Your task to perform on an android device: Add dell xps to the cart on ebay, then select checkout. Image 0: 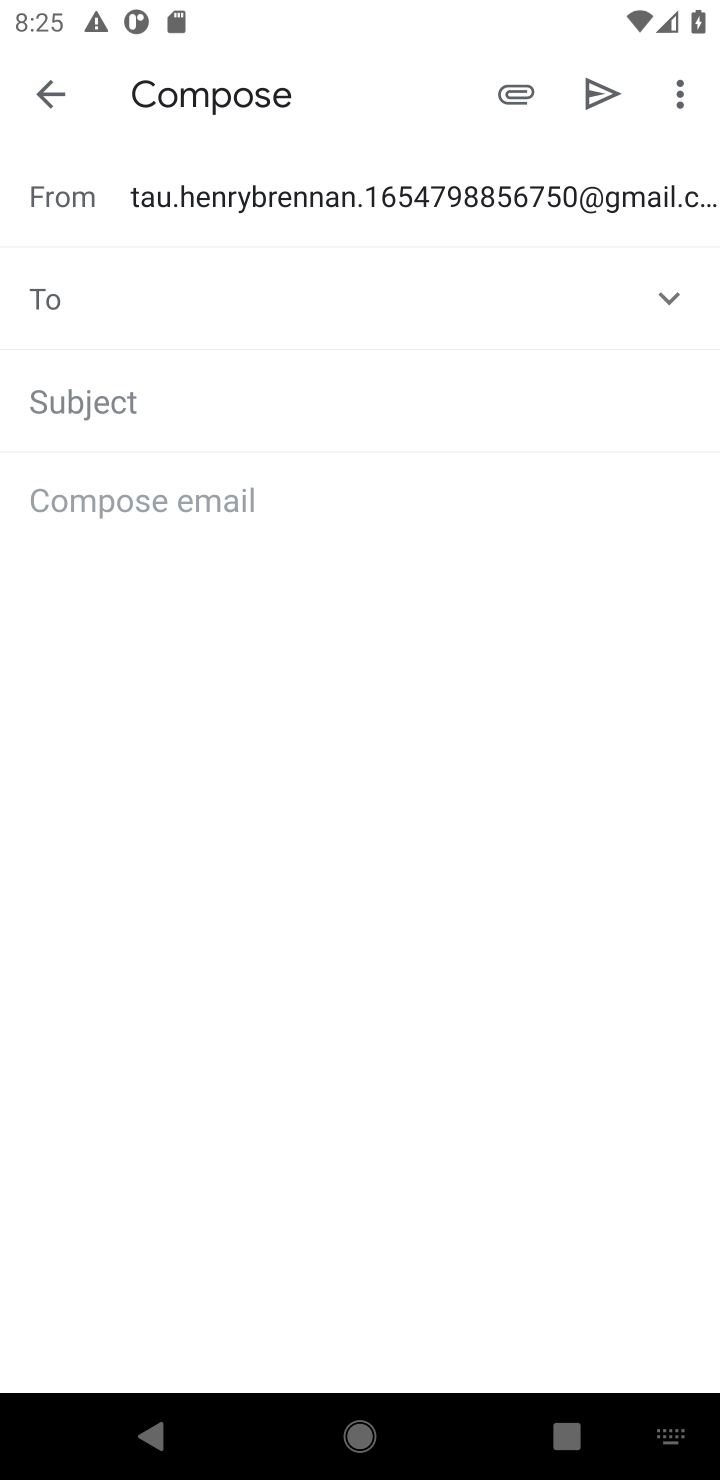
Step 0: press home button
Your task to perform on an android device: Add dell xps to the cart on ebay, then select checkout. Image 1: 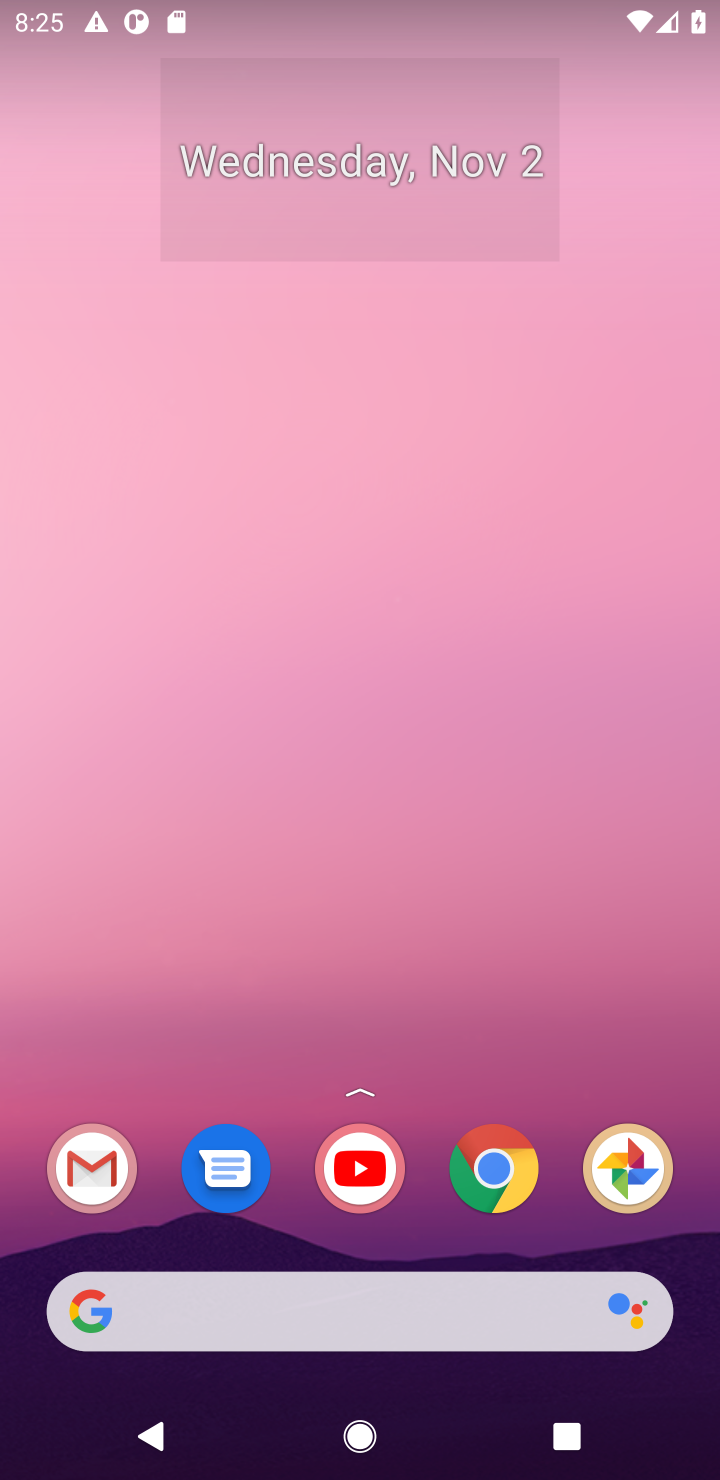
Step 1: click (497, 1170)
Your task to perform on an android device: Add dell xps to the cart on ebay, then select checkout. Image 2: 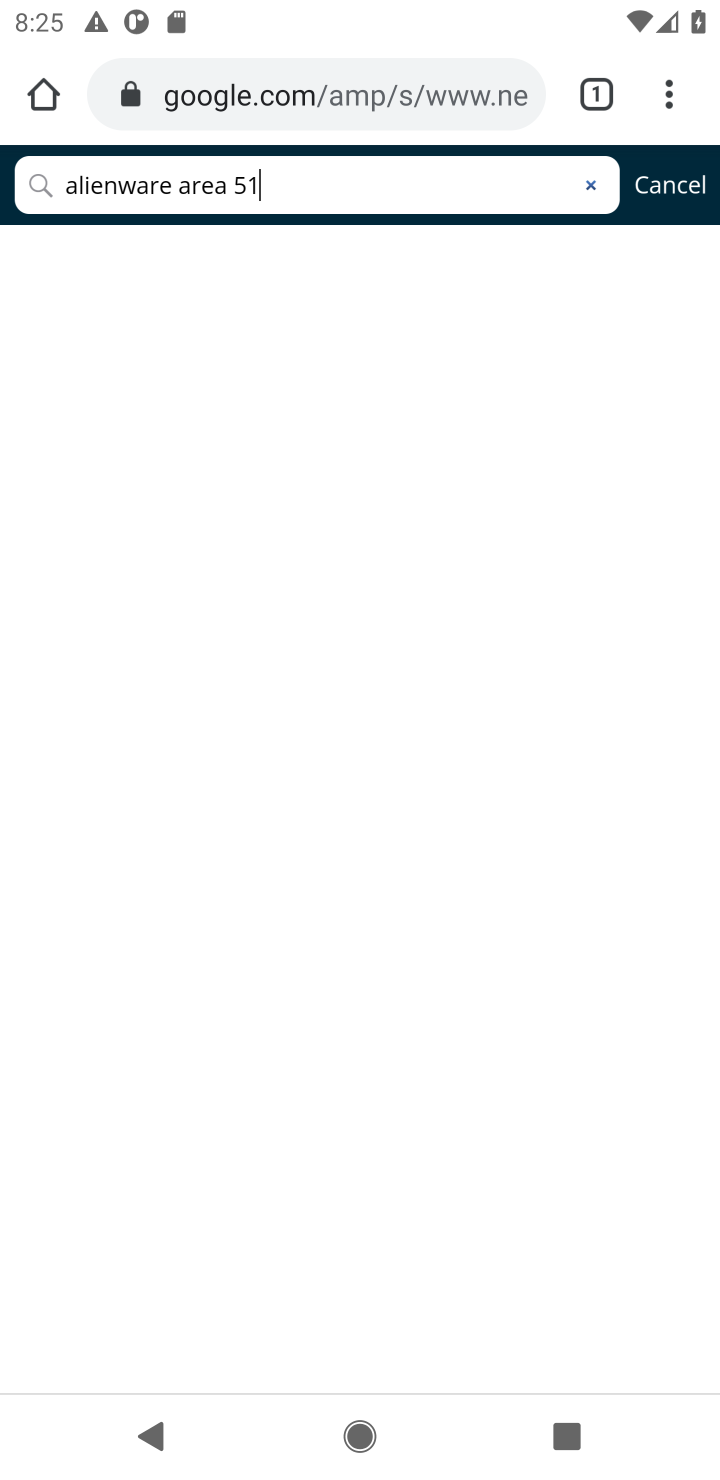
Step 2: click (402, 101)
Your task to perform on an android device: Add dell xps to the cart on ebay, then select checkout. Image 3: 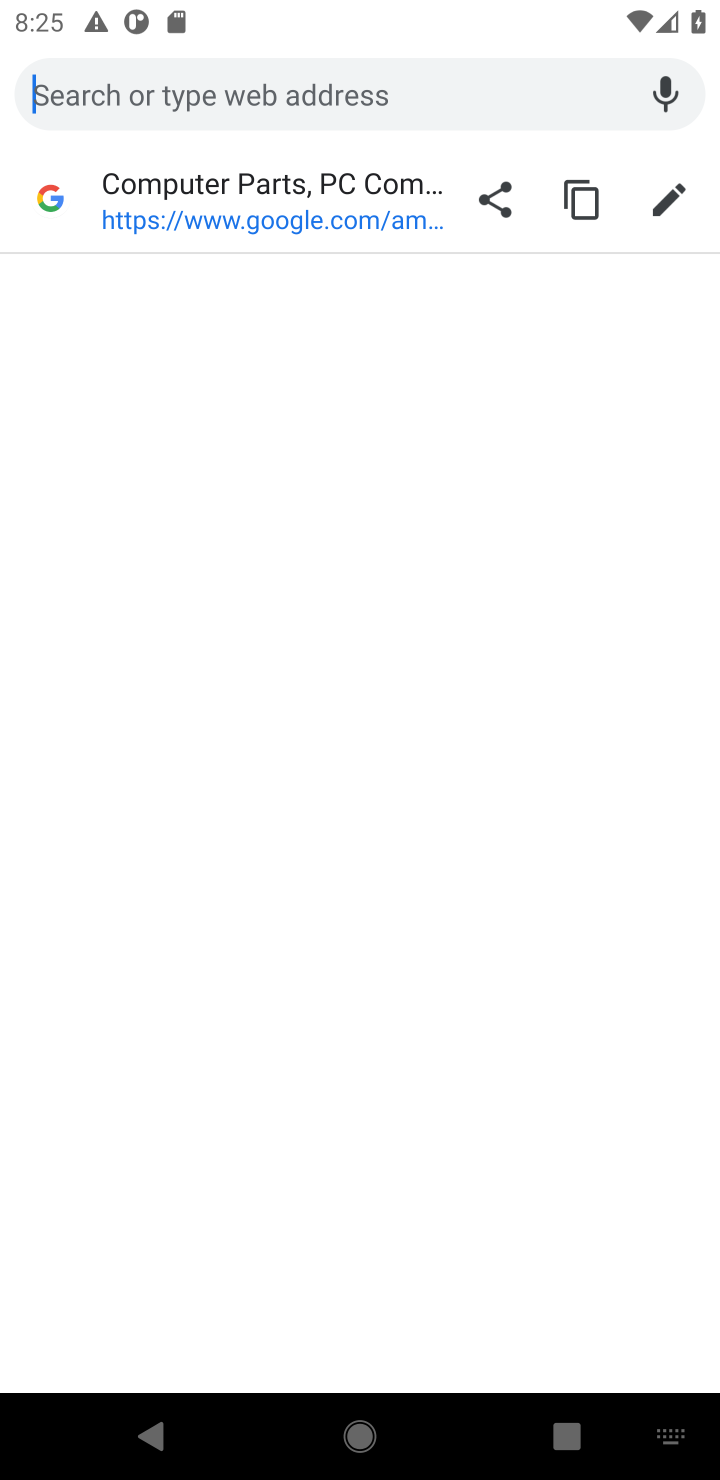
Step 3: type "ebay"
Your task to perform on an android device: Add dell xps to the cart on ebay, then select checkout. Image 4: 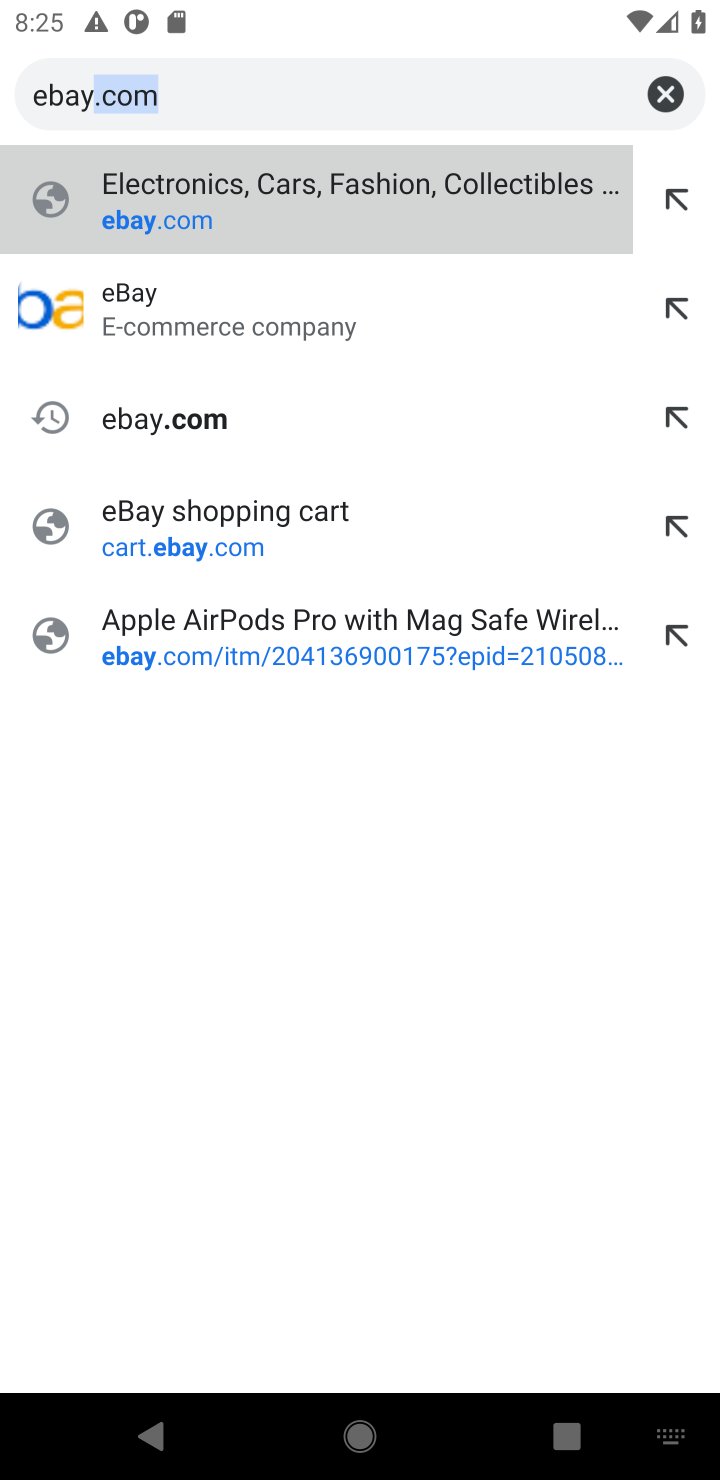
Step 4: click (176, 312)
Your task to perform on an android device: Add dell xps to the cart on ebay, then select checkout. Image 5: 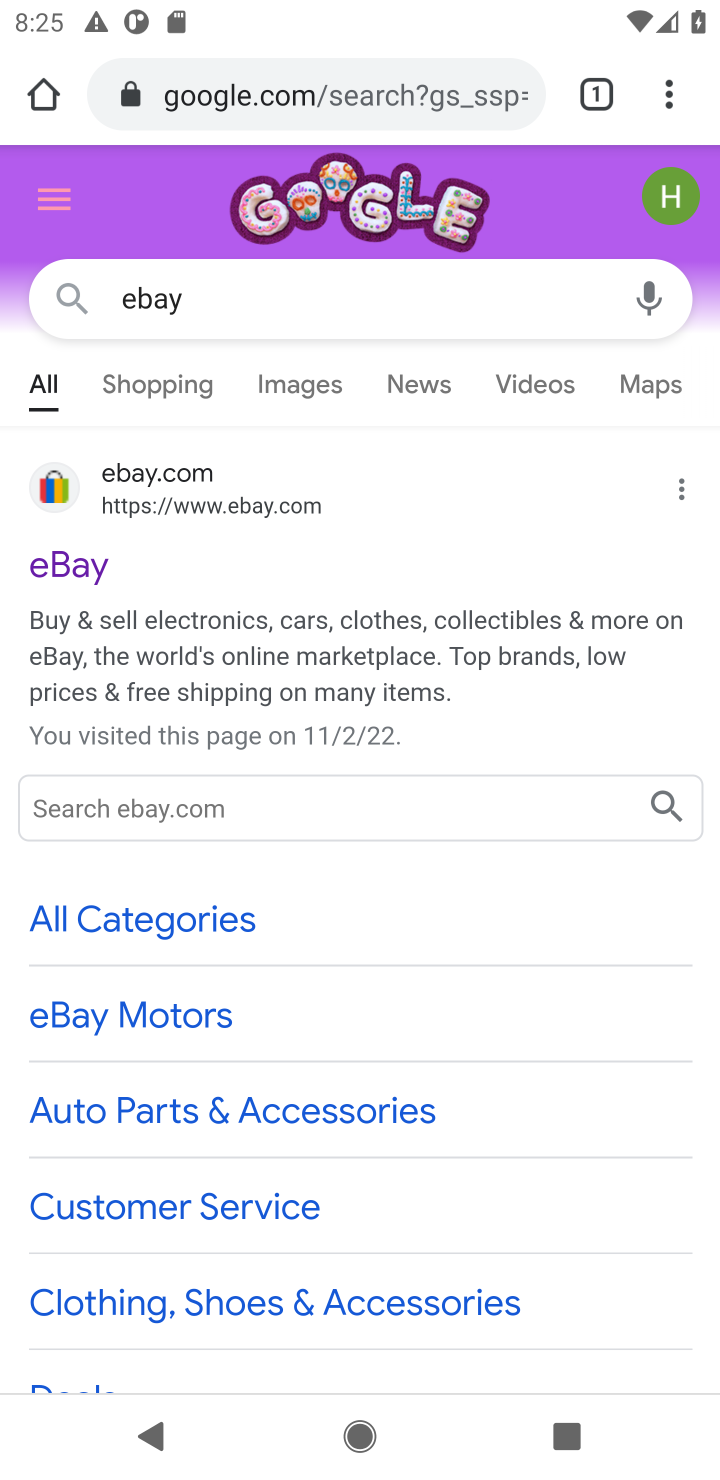
Step 5: click (225, 555)
Your task to perform on an android device: Add dell xps to the cart on ebay, then select checkout. Image 6: 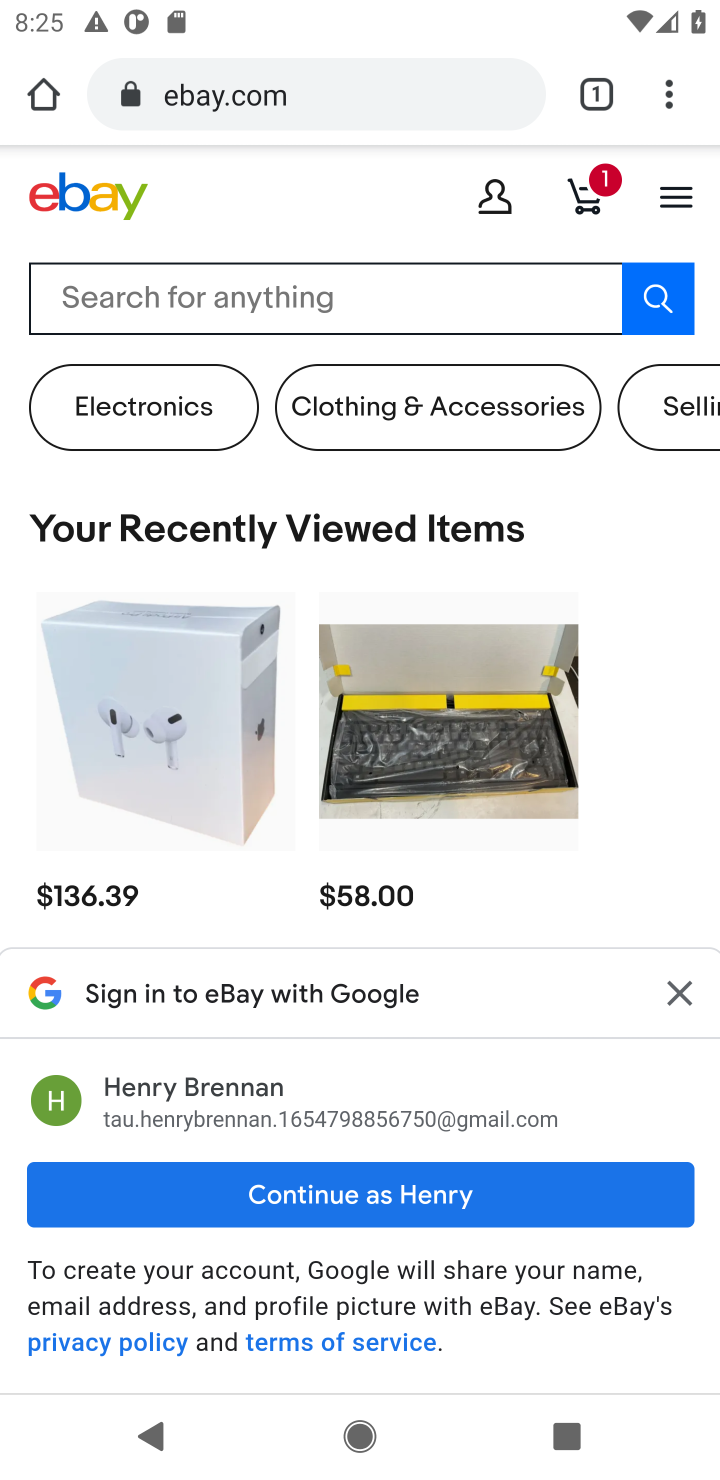
Step 6: click (369, 304)
Your task to perform on an android device: Add dell xps to the cart on ebay, then select checkout. Image 7: 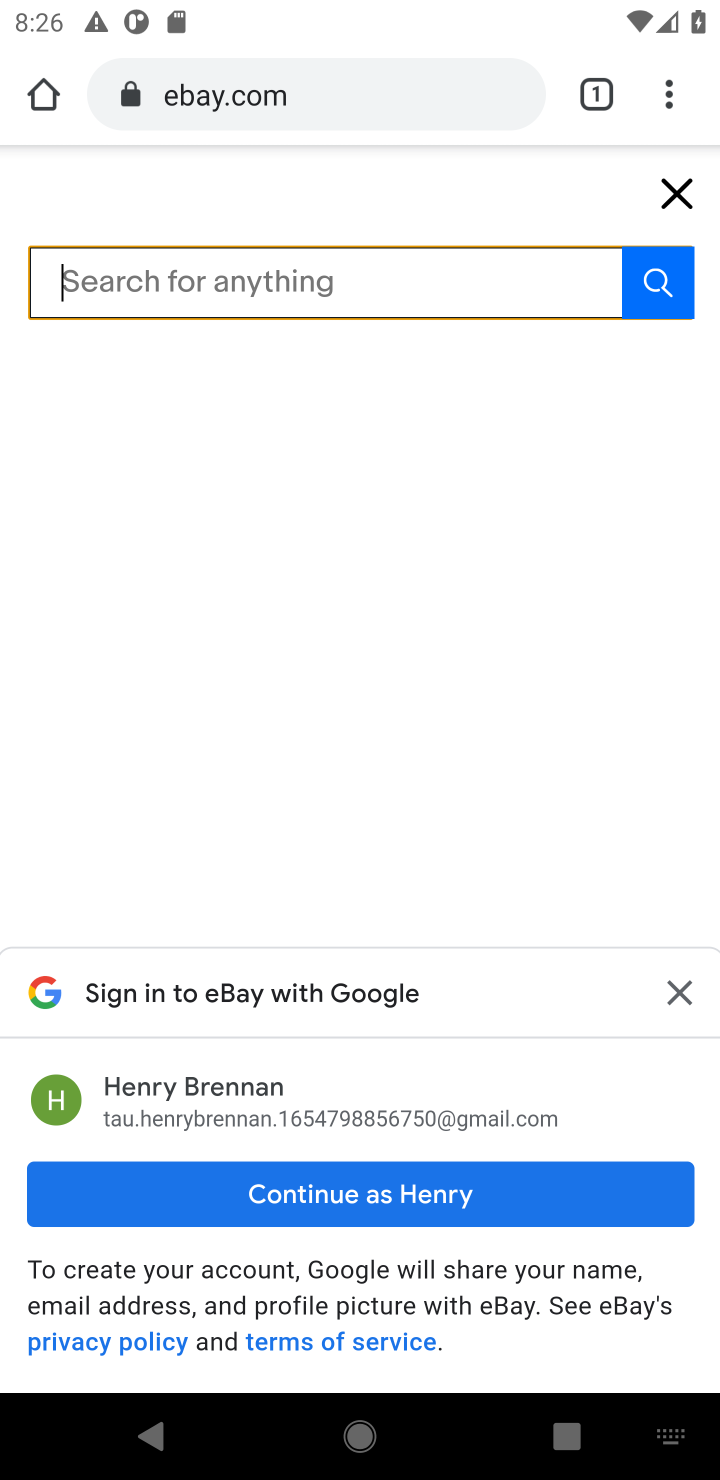
Step 7: type "dell xps"
Your task to perform on an android device: Add dell xps to the cart on ebay, then select checkout. Image 8: 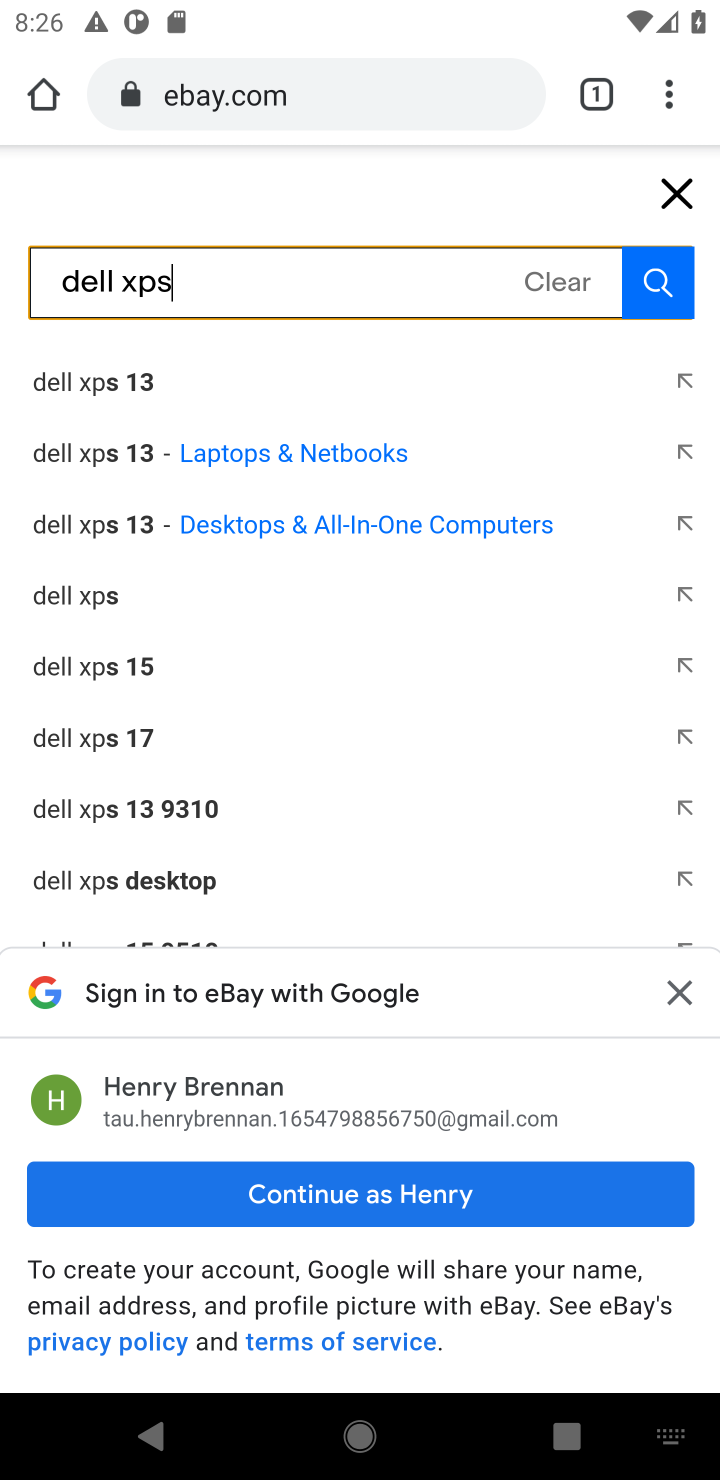
Step 8: click (661, 273)
Your task to perform on an android device: Add dell xps to the cart on ebay, then select checkout. Image 9: 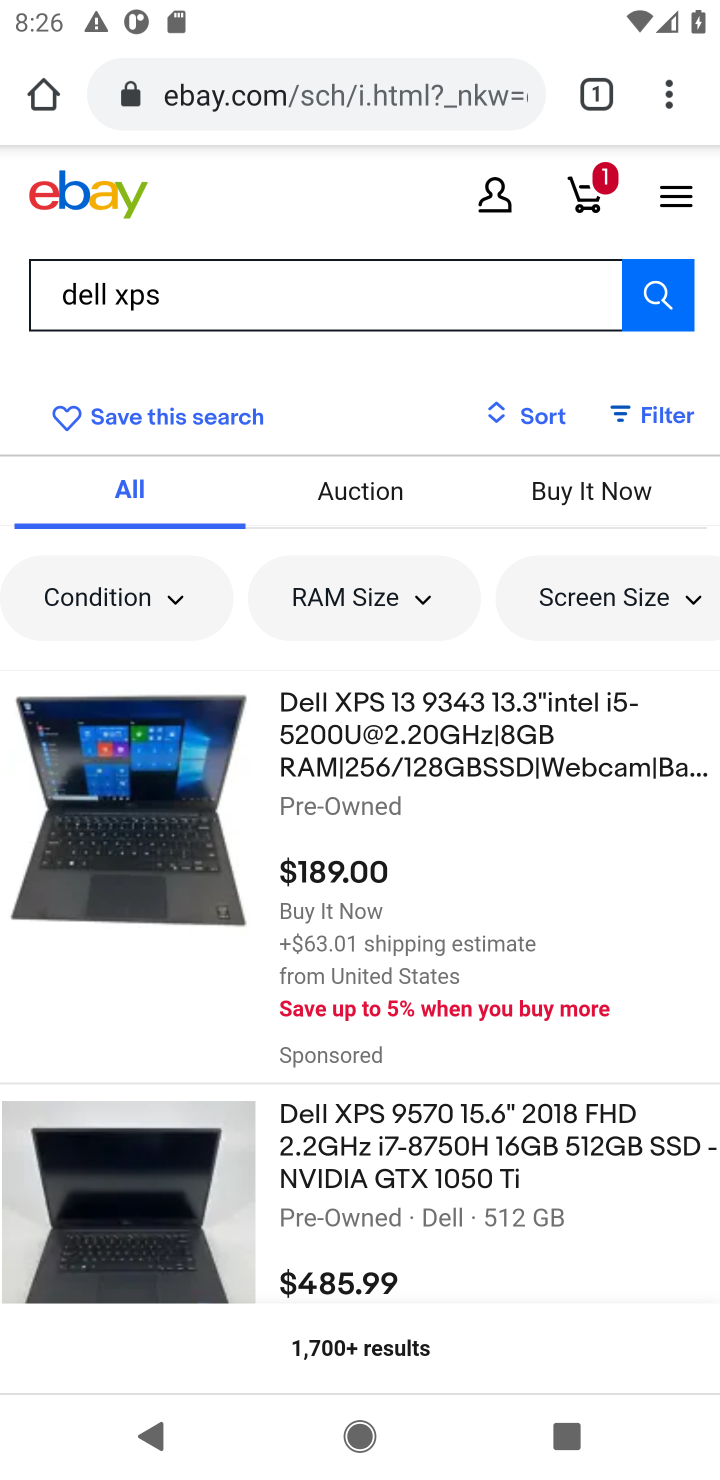
Step 9: click (460, 743)
Your task to perform on an android device: Add dell xps to the cart on ebay, then select checkout. Image 10: 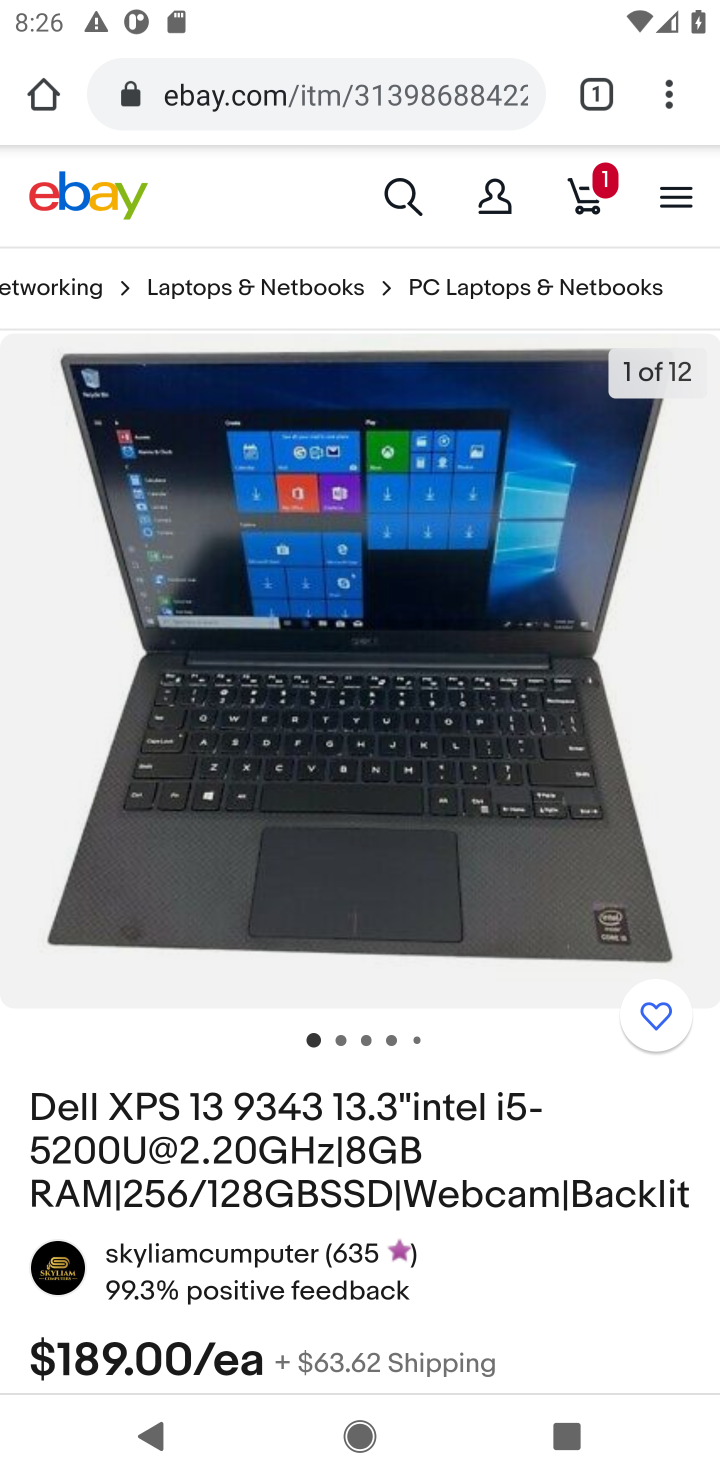
Step 10: drag from (486, 936) to (466, 616)
Your task to perform on an android device: Add dell xps to the cart on ebay, then select checkout. Image 11: 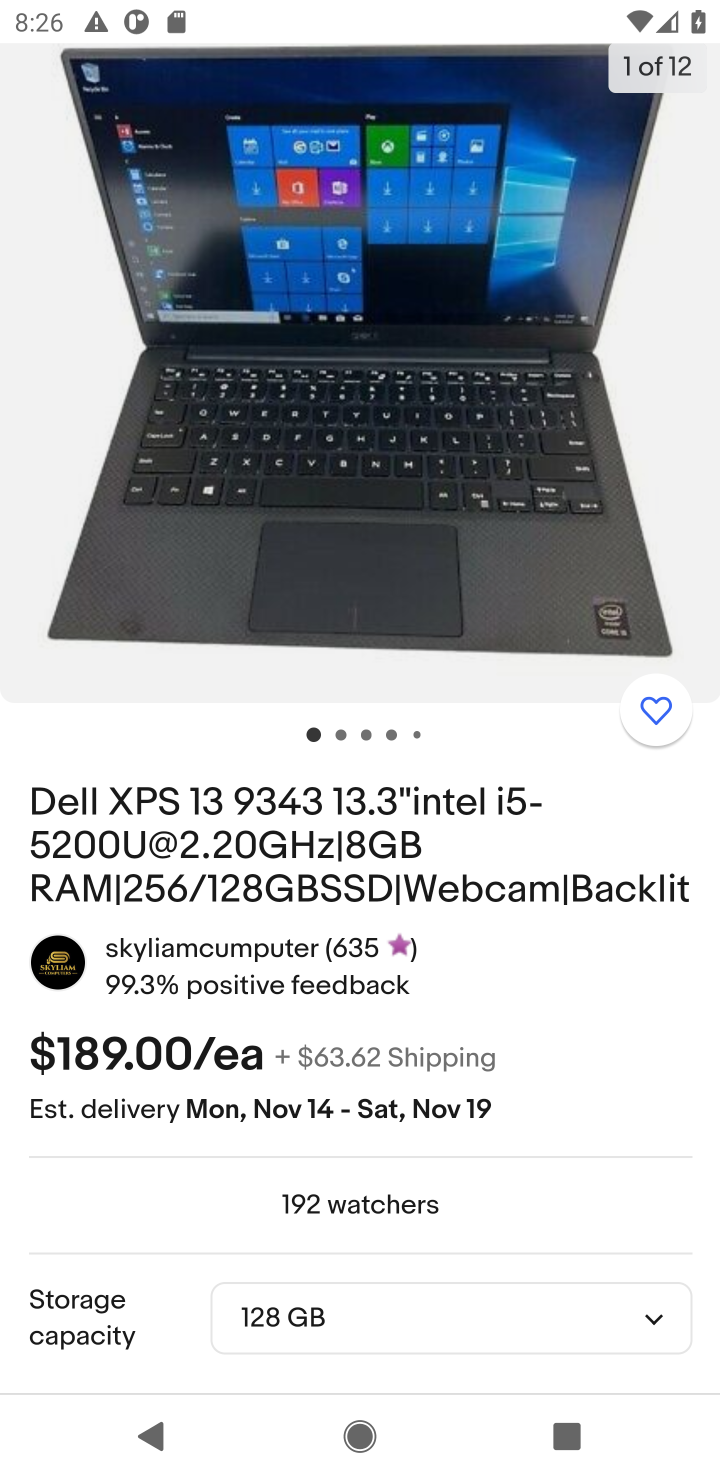
Step 11: drag from (542, 972) to (547, 612)
Your task to perform on an android device: Add dell xps to the cart on ebay, then select checkout. Image 12: 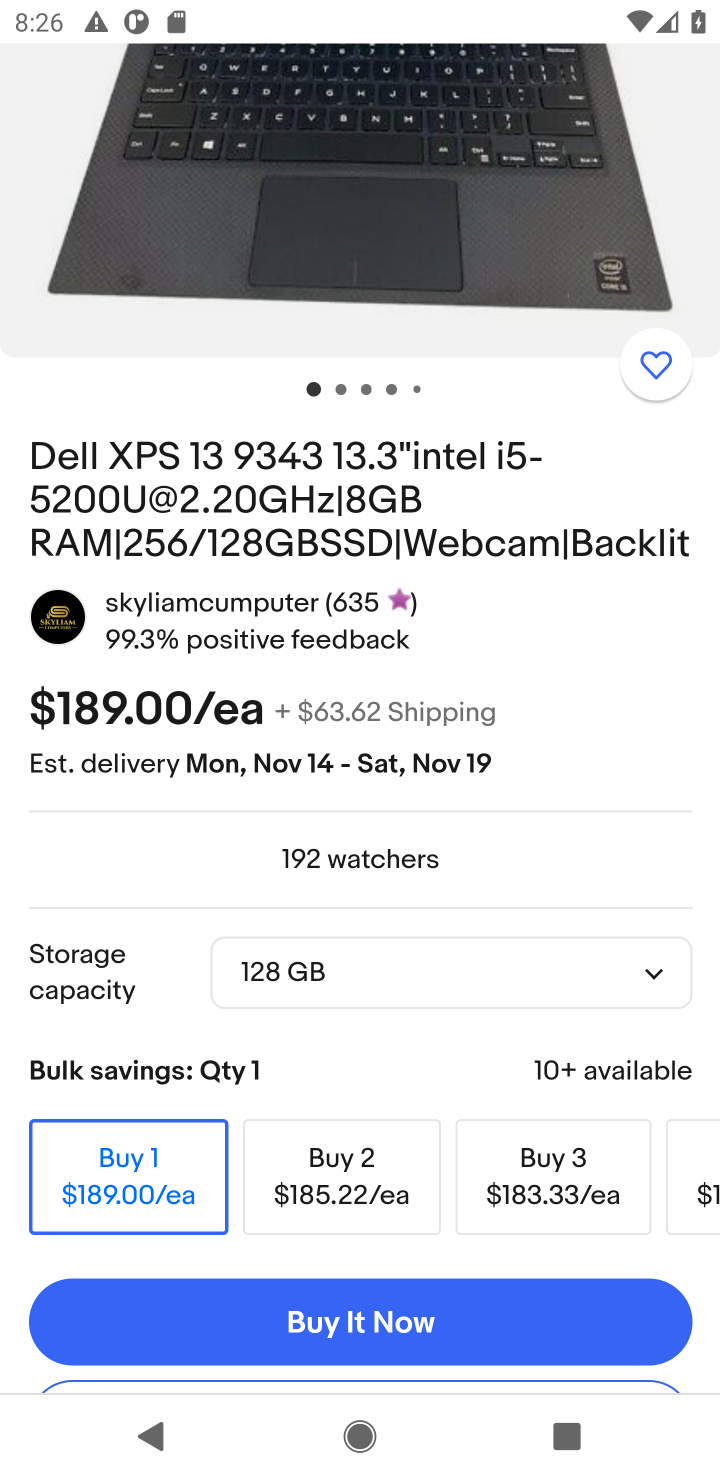
Step 12: drag from (594, 699) to (609, 335)
Your task to perform on an android device: Add dell xps to the cart on ebay, then select checkout. Image 13: 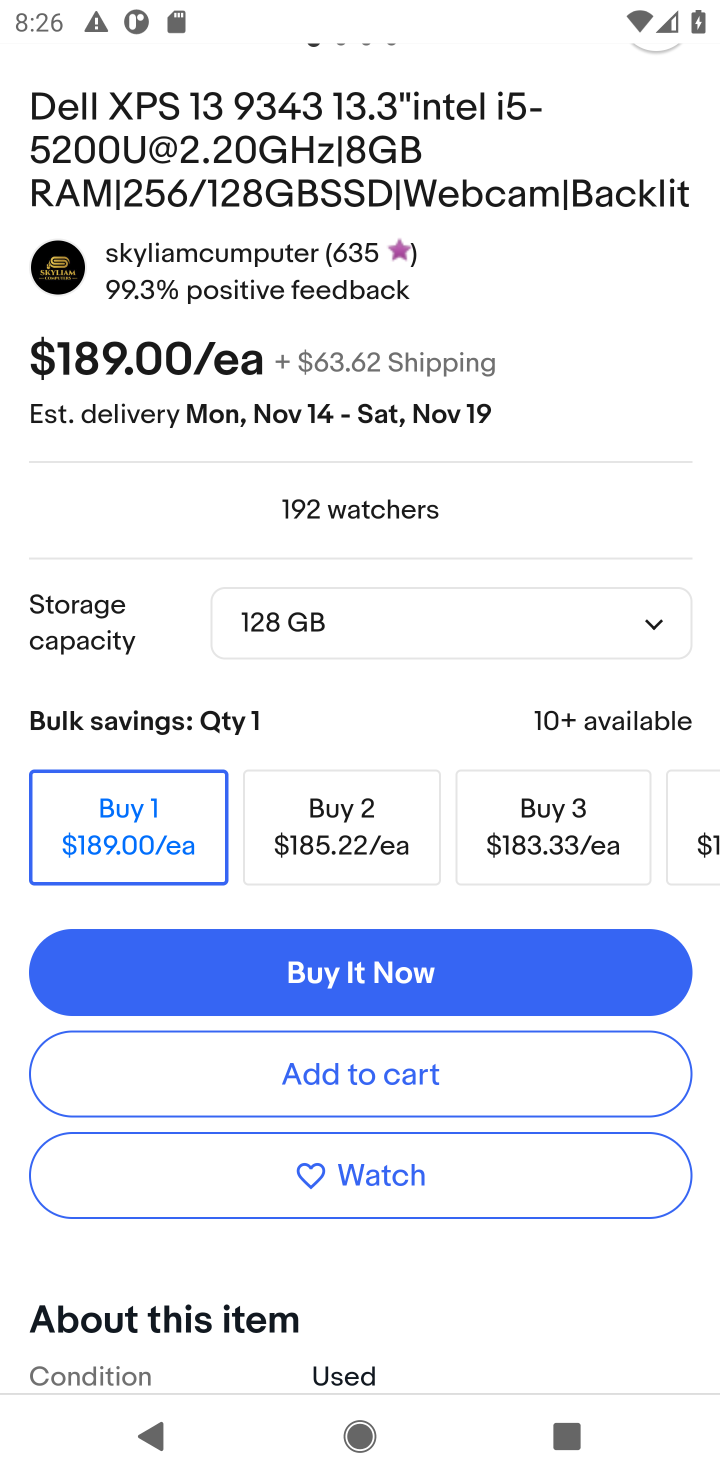
Step 13: click (384, 1076)
Your task to perform on an android device: Add dell xps to the cart on ebay, then select checkout. Image 14: 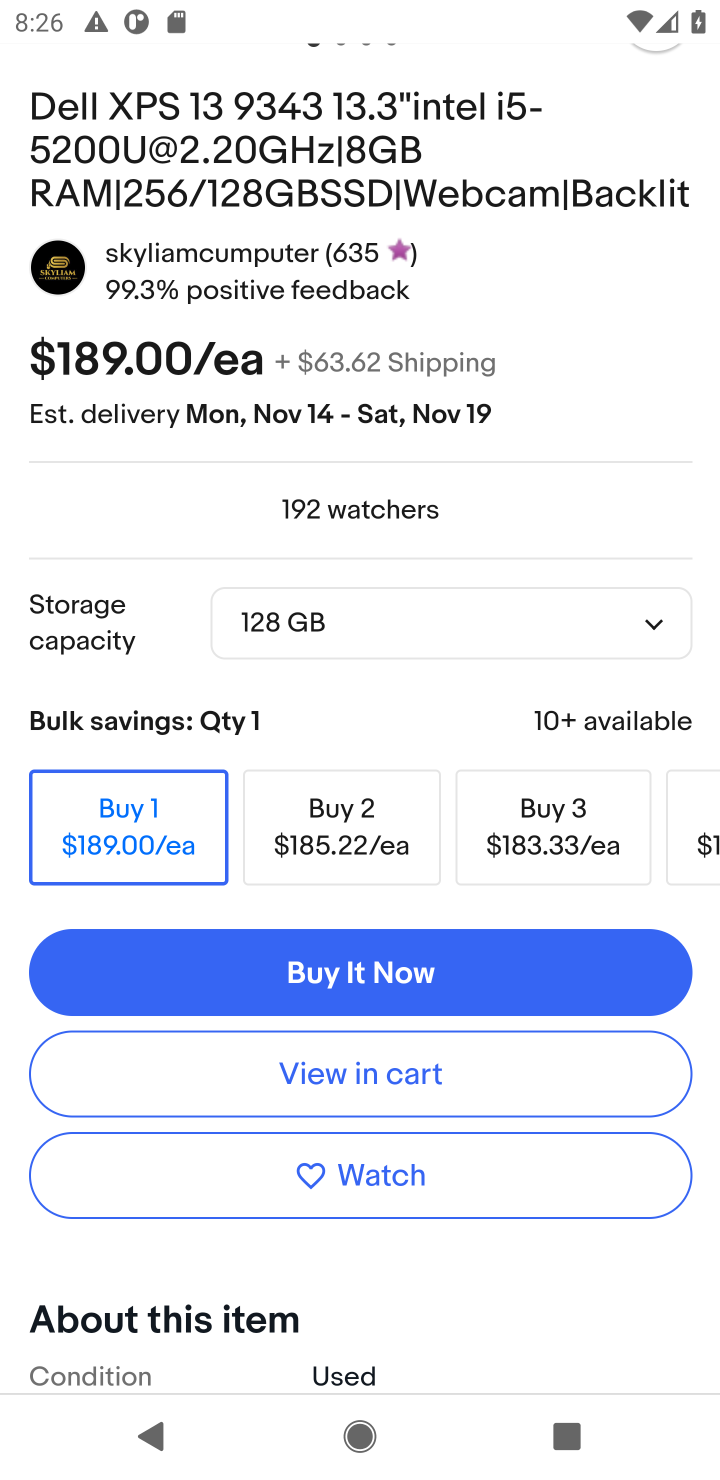
Step 14: click (384, 1076)
Your task to perform on an android device: Add dell xps to the cart on ebay, then select checkout. Image 15: 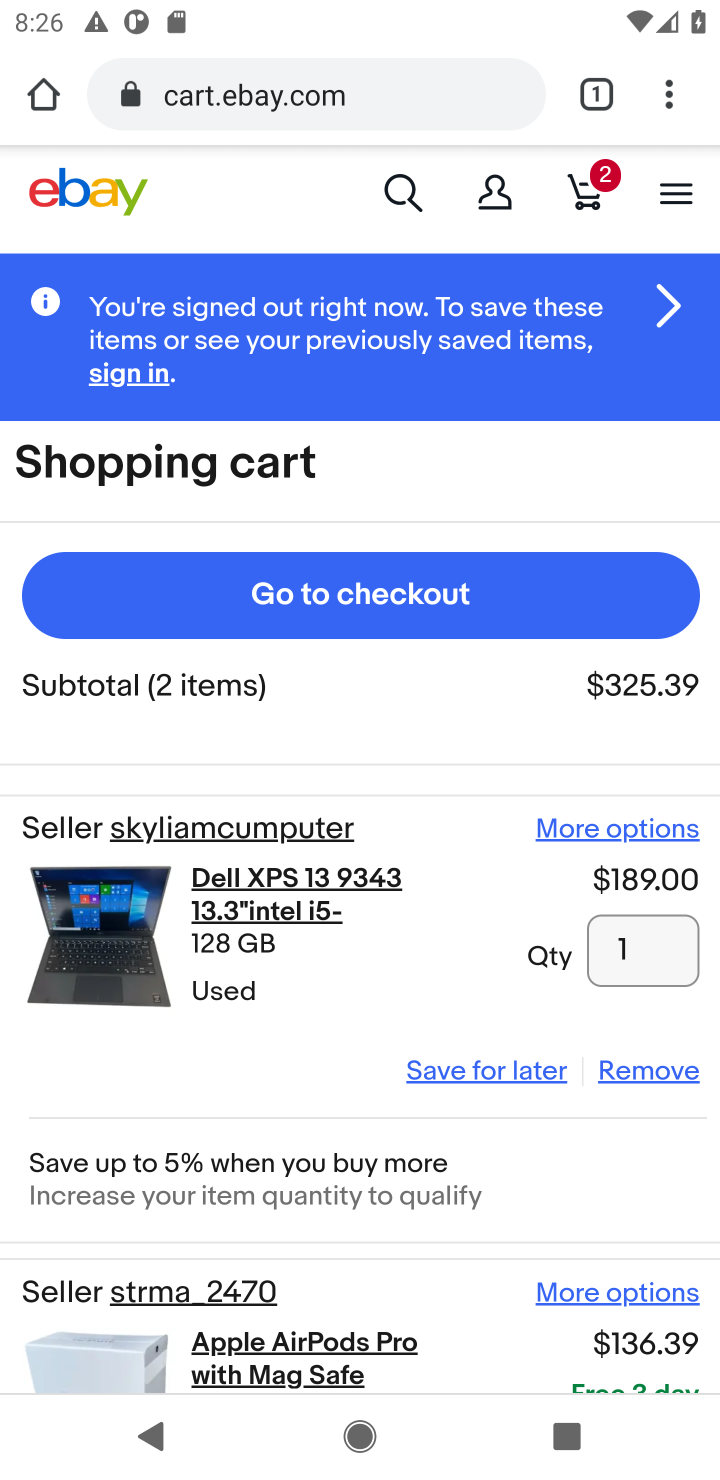
Step 15: click (411, 599)
Your task to perform on an android device: Add dell xps to the cart on ebay, then select checkout. Image 16: 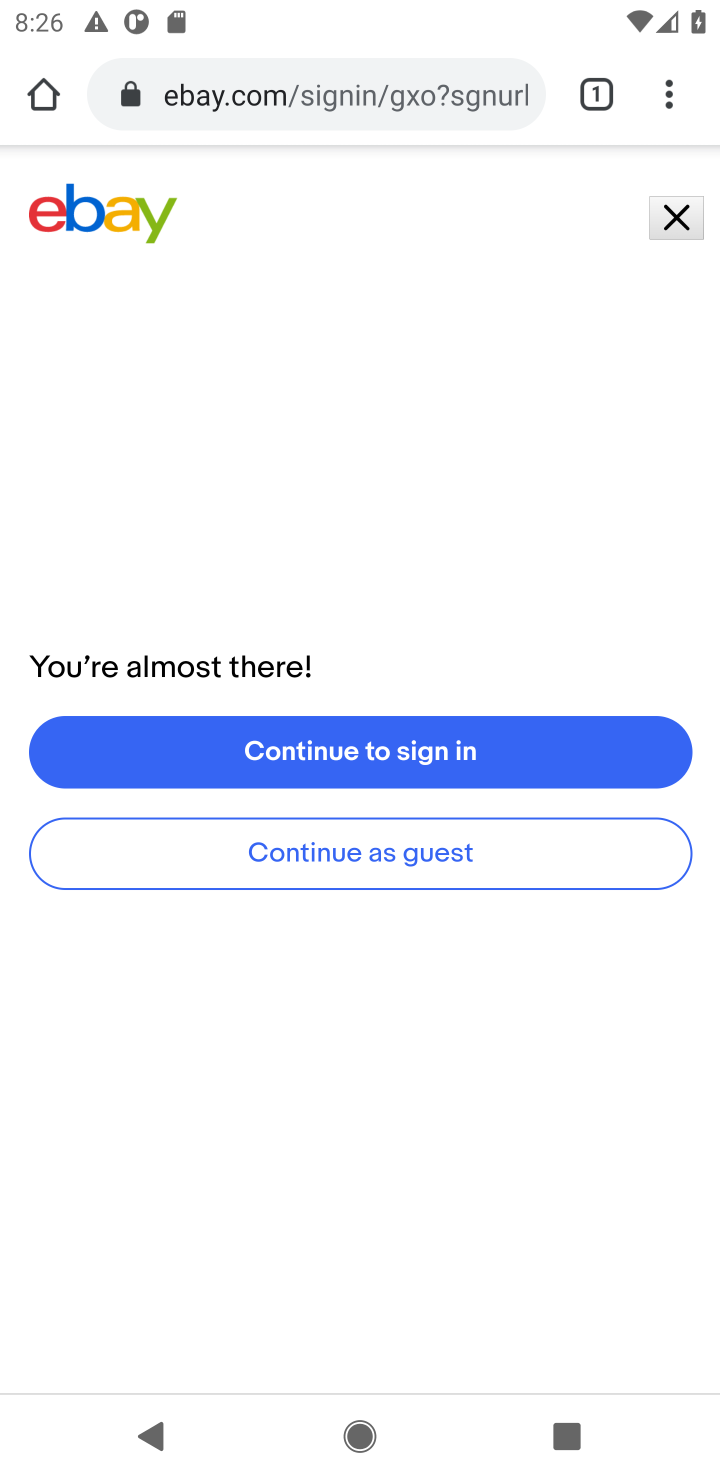
Step 16: task complete